Your task to perform on an android device: toggle javascript in the chrome app Image 0: 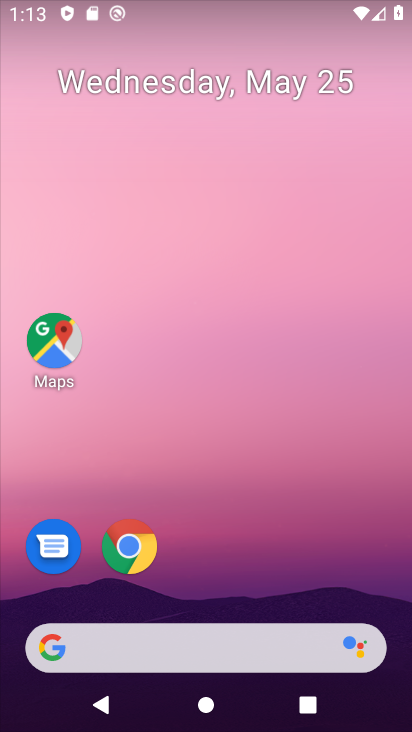
Step 0: drag from (377, 571) to (368, 290)
Your task to perform on an android device: toggle javascript in the chrome app Image 1: 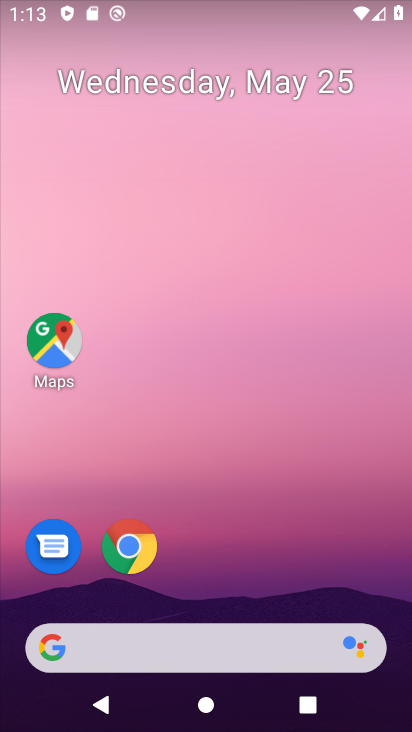
Step 1: drag from (363, 583) to (370, 132)
Your task to perform on an android device: toggle javascript in the chrome app Image 2: 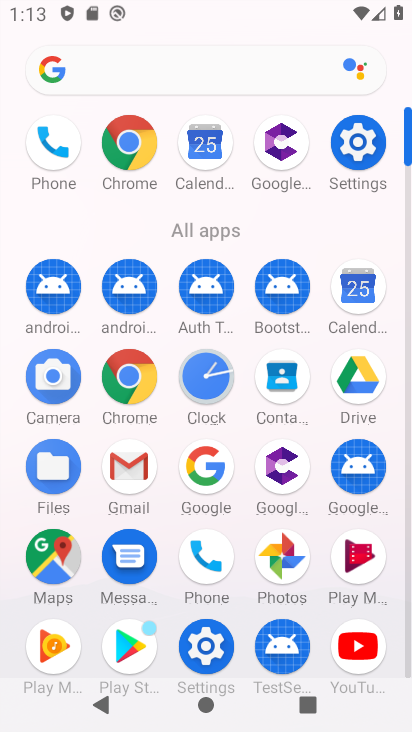
Step 2: click (133, 387)
Your task to perform on an android device: toggle javascript in the chrome app Image 3: 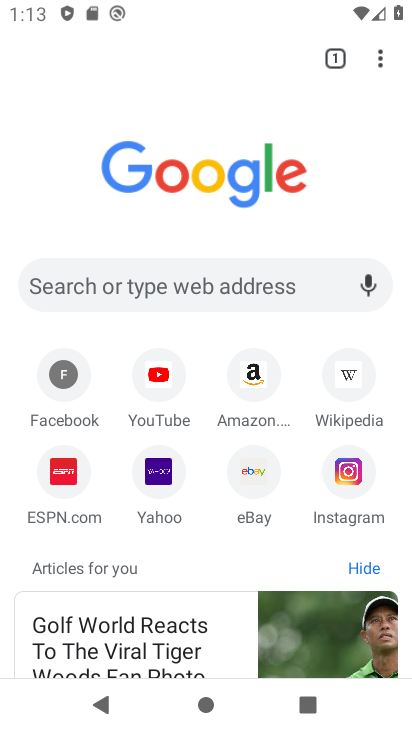
Step 3: click (379, 65)
Your task to perform on an android device: toggle javascript in the chrome app Image 4: 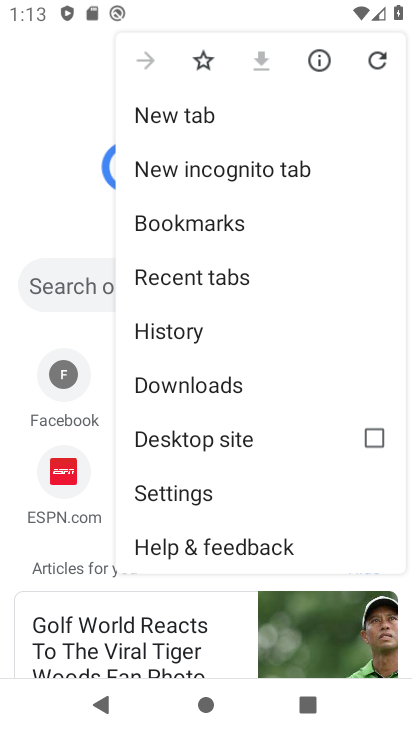
Step 4: click (207, 504)
Your task to perform on an android device: toggle javascript in the chrome app Image 5: 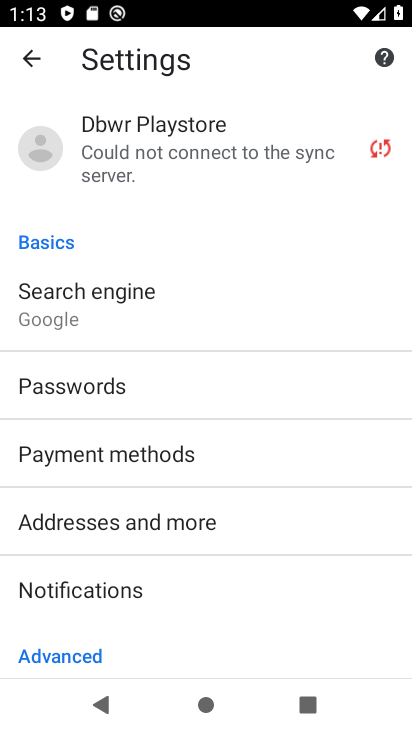
Step 5: drag from (296, 598) to (307, 472)
Your task to perform on an android device: toggle javascript in the chrome app Image 6: 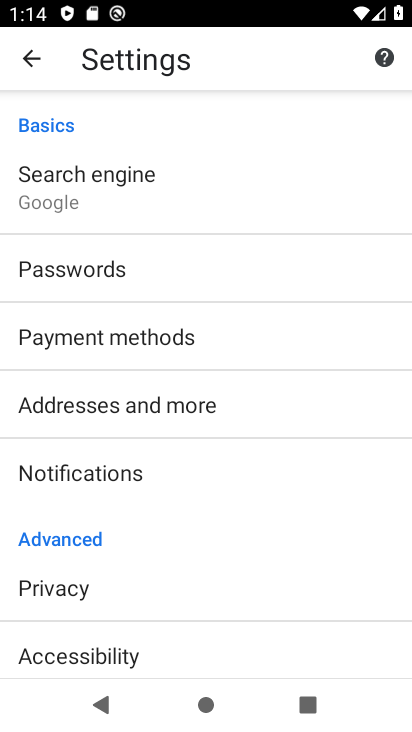
Step 6: drag from (337, 612) to (329, 508)
Your task to perform on an android device: toggle javascript in the chrome app Image 7: 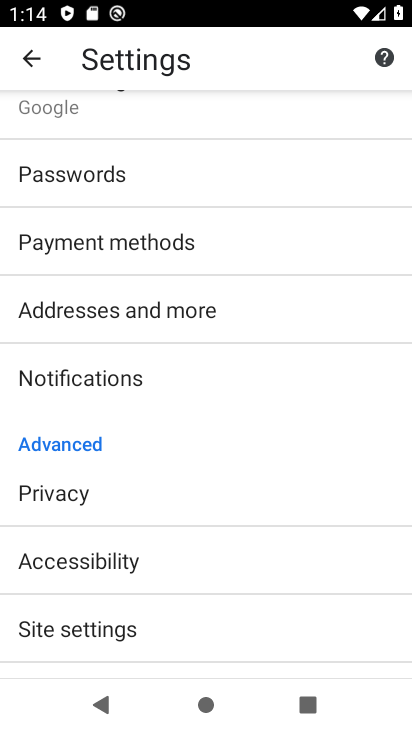
Step 7: drag from (334, 621) to (345, 508)
Your task to perform on an android device: toggle javascript in the chrome app Image 8: 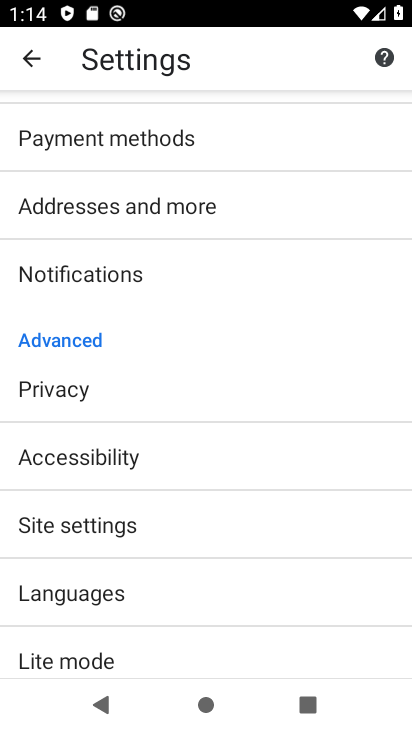
Step 8: drag from (331, 619) to (341, 473)
Your task to perform on an android device: toggle javascript in the chrome app Image 9: 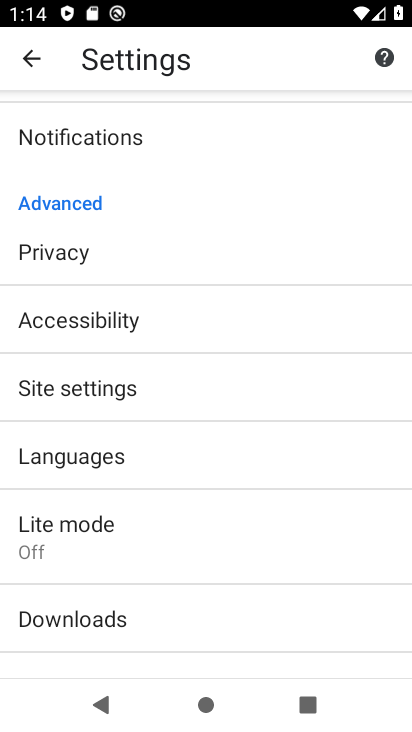
Step 9: click (185, 400)
Your task to perform on an android device: toggle javascript in the chrome app Image 10: 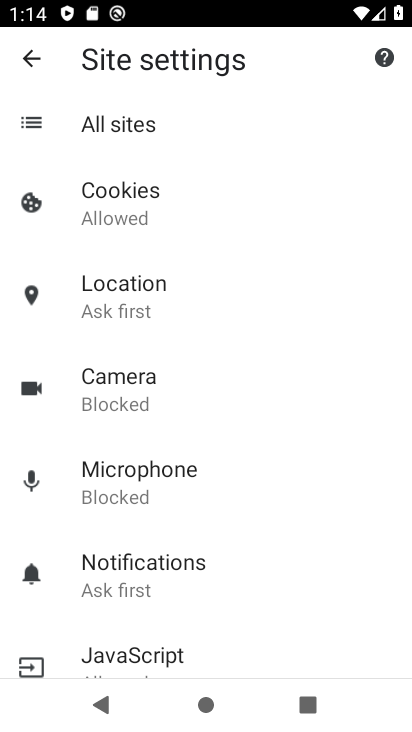
Step 10: drag from (314, 581) to (305, 455)
Your task to perform on an android device: toggle javascript in the chrome app Image 11: 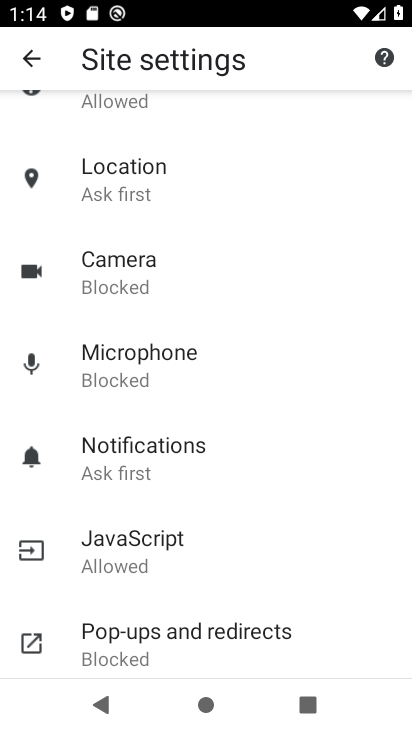
Step 11: drag from (341, 604) to (349, 476)
Your task to perform on an android device: toggle javascript in the chrome app Image 12: 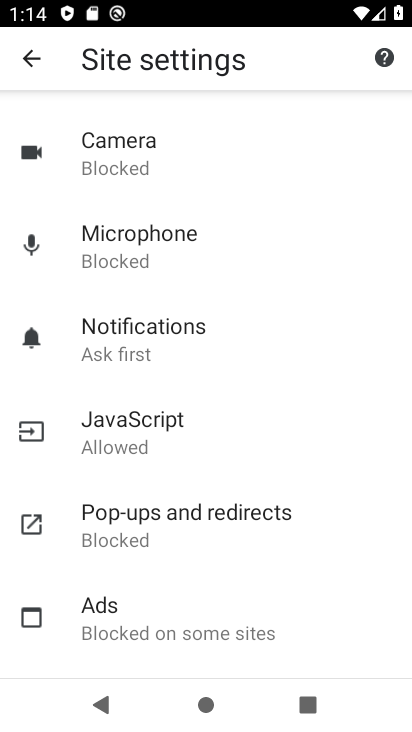
Step 12: drag from (344, 566) to (351, 423)
Your task to perform on an android device: toggle javascript in the chrome app Image 13: 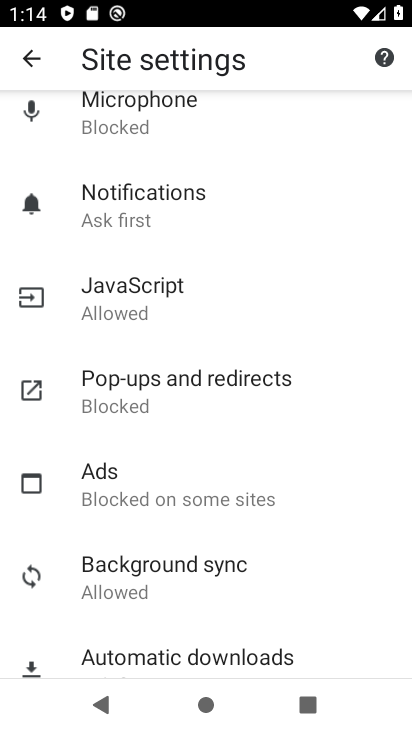
Step 13: click (175, 298)
Your task to perform on an android device: toggle javascript in the chrome app Image 14: 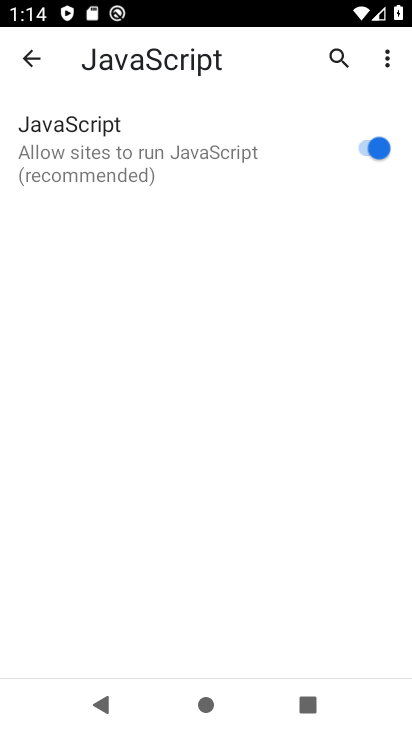
Step 14: task complete